Your task to perform on an android device: toggle notification dots Image 0: 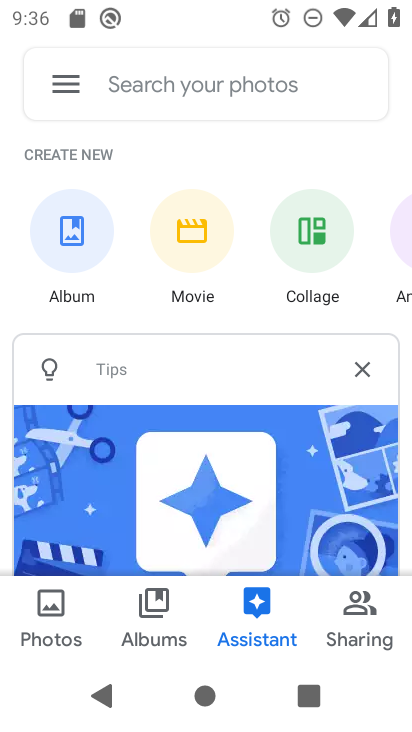
Step 0: press home button
Your task to perform on an android device: toggle notification dots Image 1: 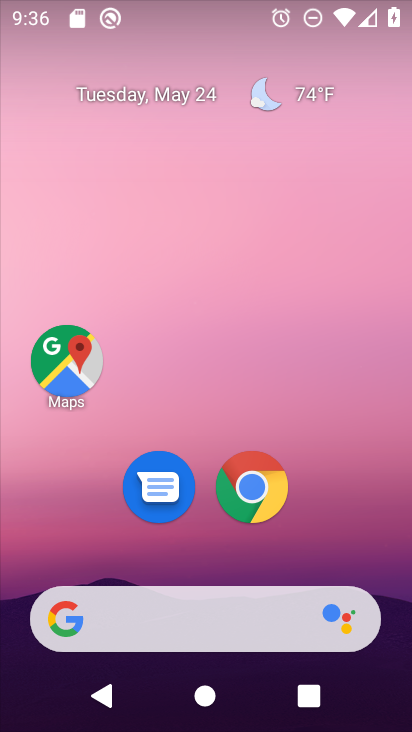
Step 1: drag from (330, 578) to (359, 0)
Your task to perform on an android device: toggle notification dots Image 2: 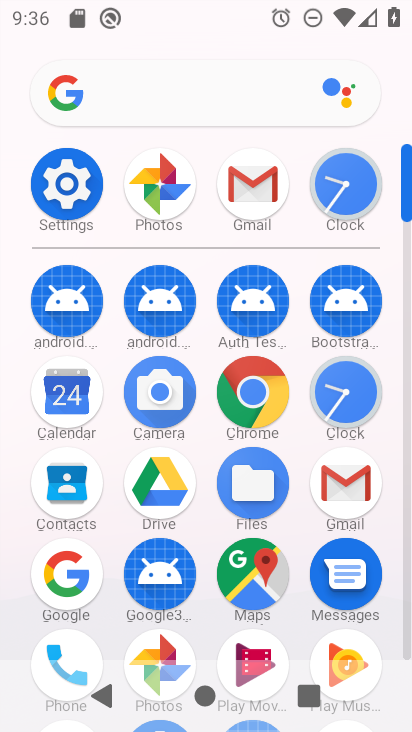
Step 2: click (73, 176)
Your task to perform on an android device: toggle notification dots Image 3: 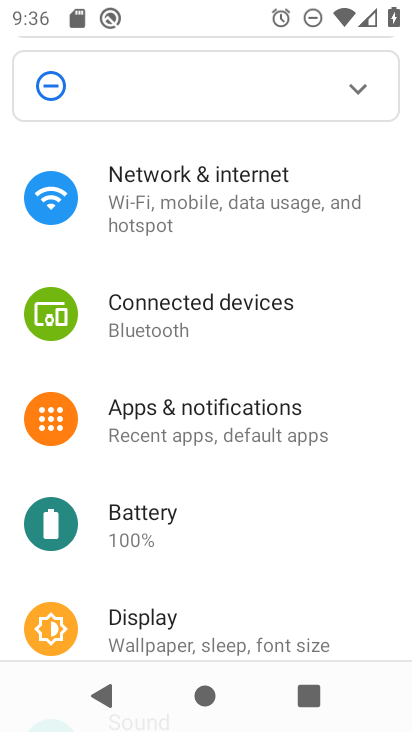
Step 3: click (196, 427)
Your task to perform on an android device: toggle notification dots Image 4: 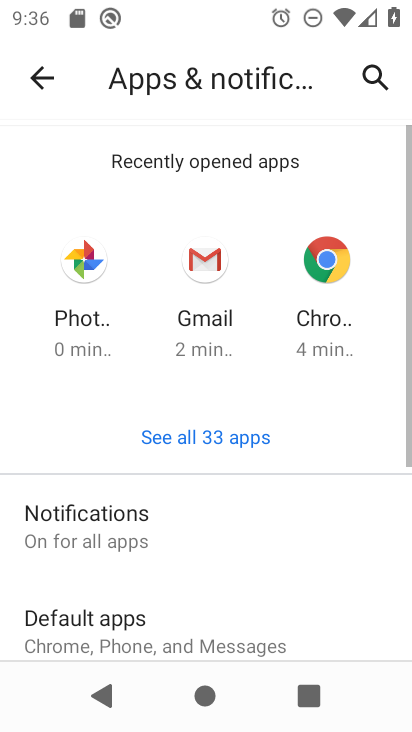
Step 4: click (115, 533)
Your task to perform on an android device: toggle notification dots Image 5: 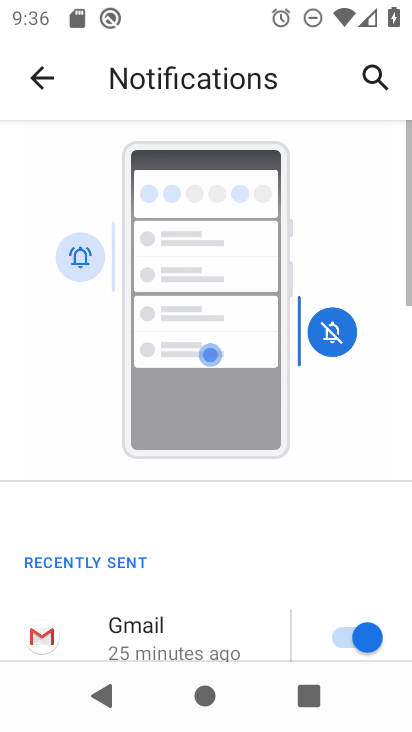
Step 5: drag from (210, 582) to (241, 27)
Your task to perform on an android device: toggle notification dots Image 6: 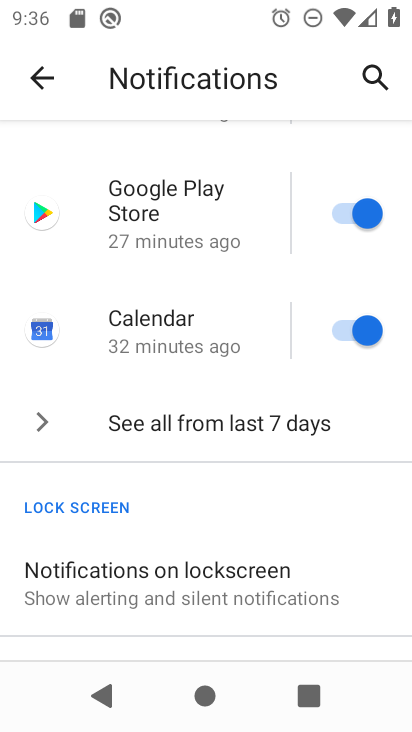
Step 6: drag from (163, 531) to (201, 226)
Your task to perform on an android device: toggle notification dots Image 7: 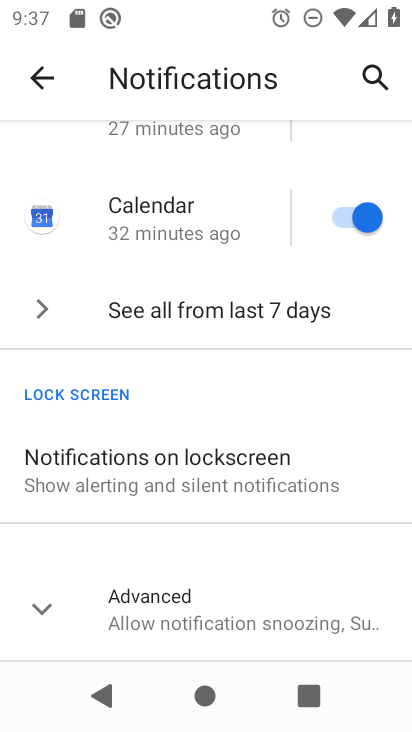
Step 7: drag from (176, 494) to (194, 198)
Your task to perform on an android device: toggle notification dots Image 8: 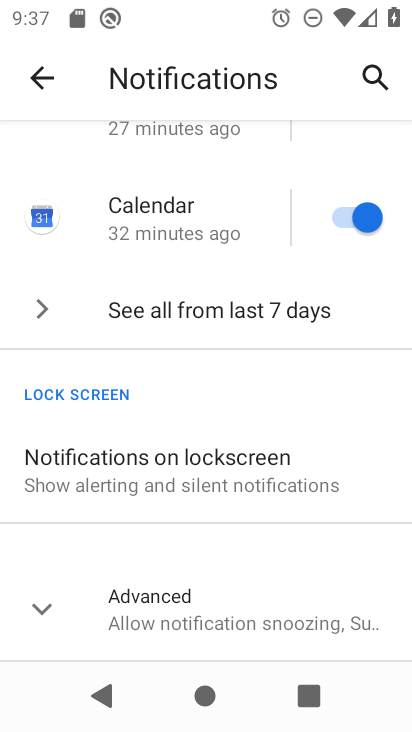
Step 8: click (42, 616)
Your task to perform on an android device: toggle notification dots Image 9: 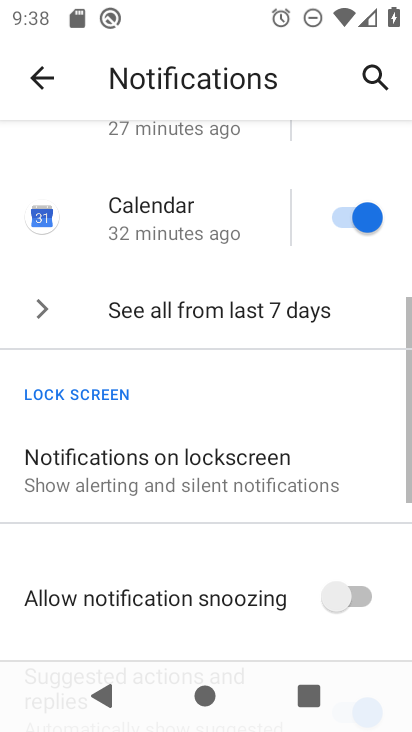
Step 9: drag from (153, 619) to (182, 133)
Your task to perform on an android device: toggle notification dots Image 10: 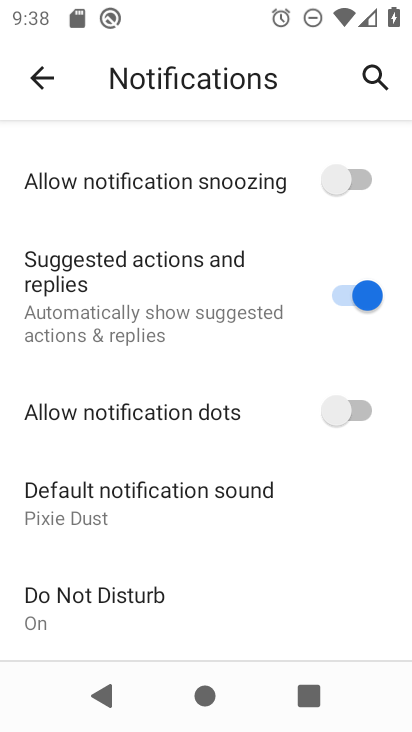
Step 10: click (329, 414)
Your task to perform on an android device: toggle notification dots Image 11: 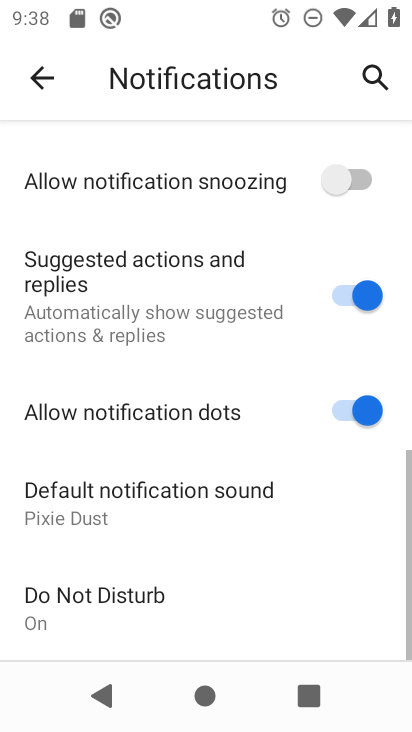
Step 11: task complete